Your task to perform on an android device: Open eBay Image 0: 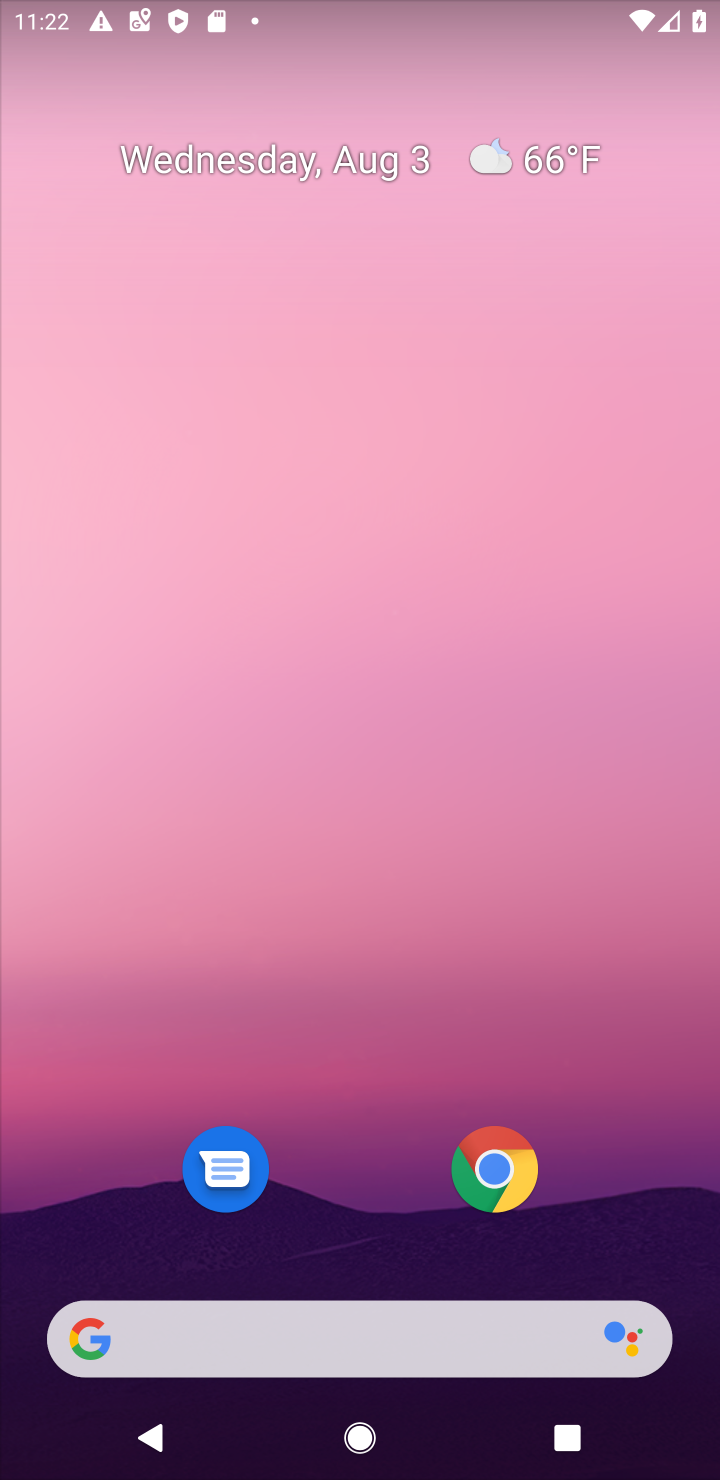
Step 0: click (497, 1182)
Your task to perform on an android device: Open eBay Image 1: 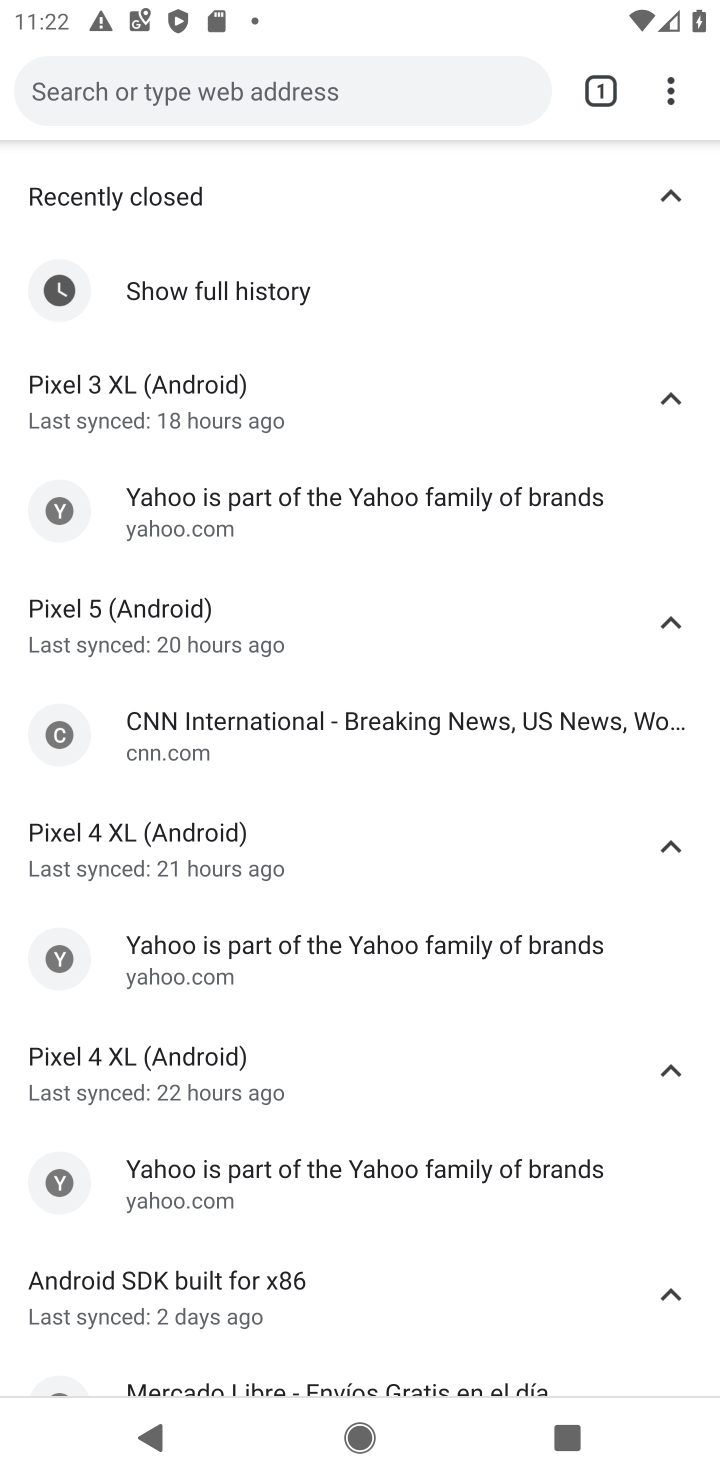
Step 1: click (98, 91)
Your task to perform on an android device: Open eBay Image 2: 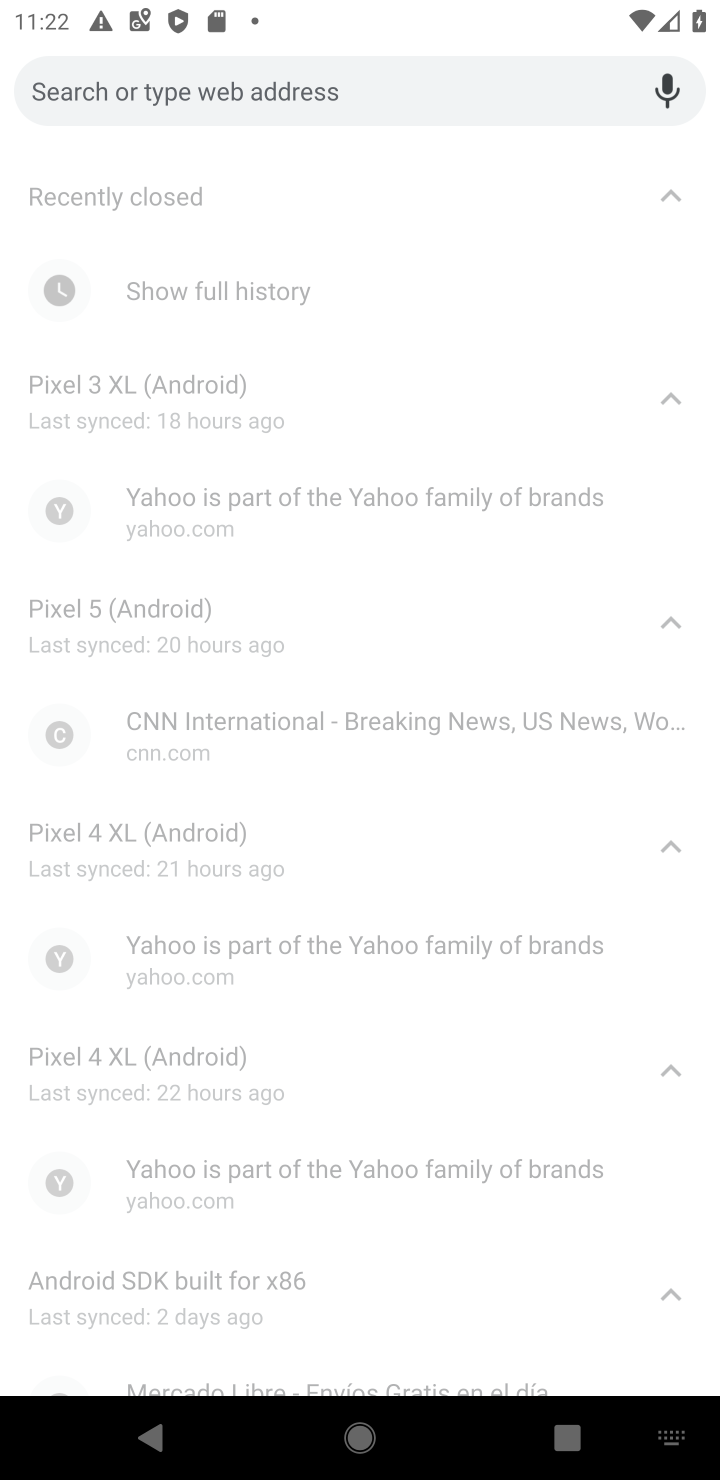
Step 2: type "ebay"
Your task to perform on an android device: Open eBay Image 3: 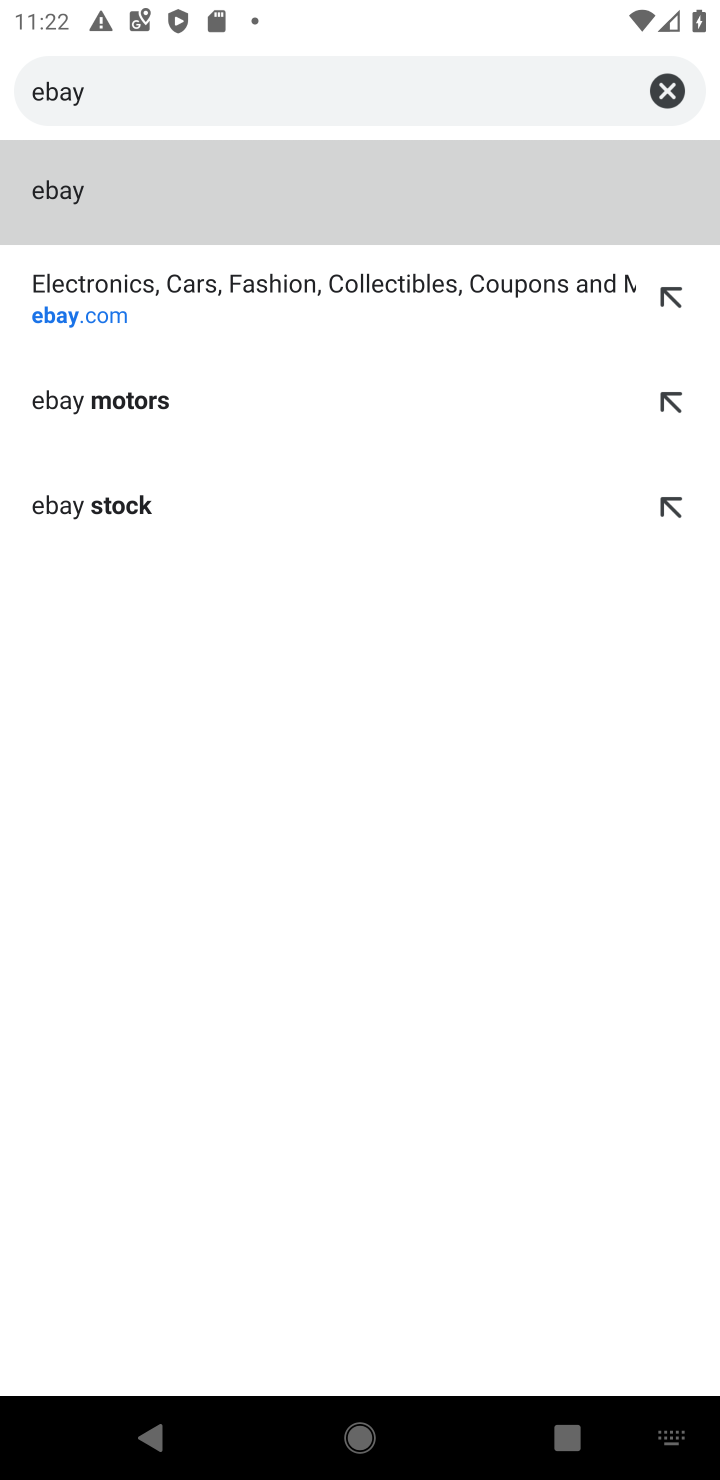
Step 3: click (69, 324)
Your task to perform on an android device: Open eBay Image 4: 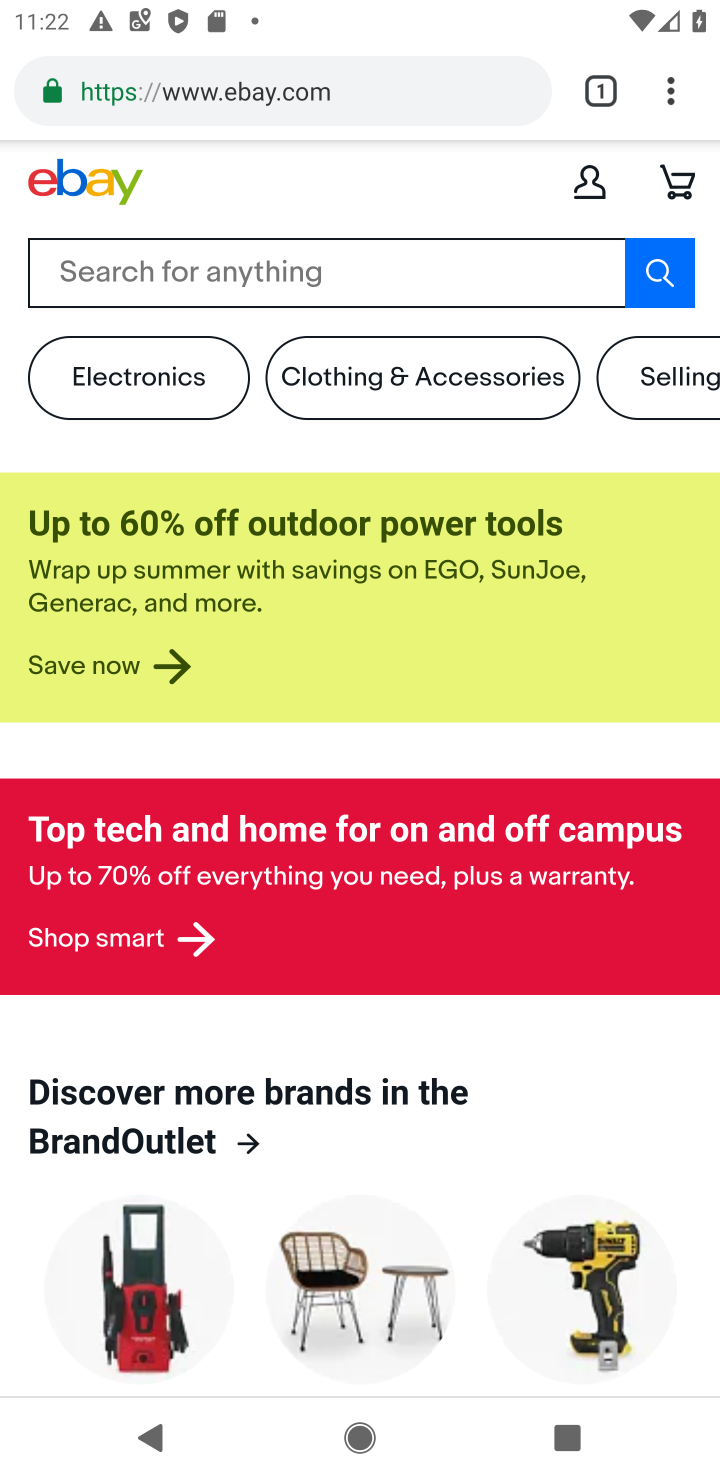
Step 4: task complete